Your task to perform on an android device: set the stopwatch Image 0: 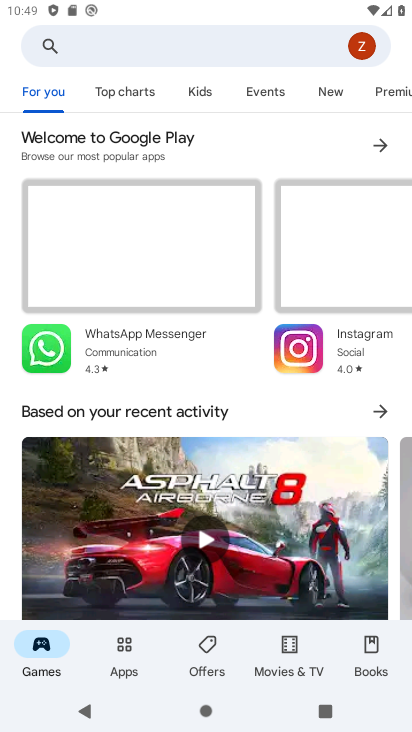
Step 0: press home button
Your task to perform on an android device: set the stopwatch Image 1: 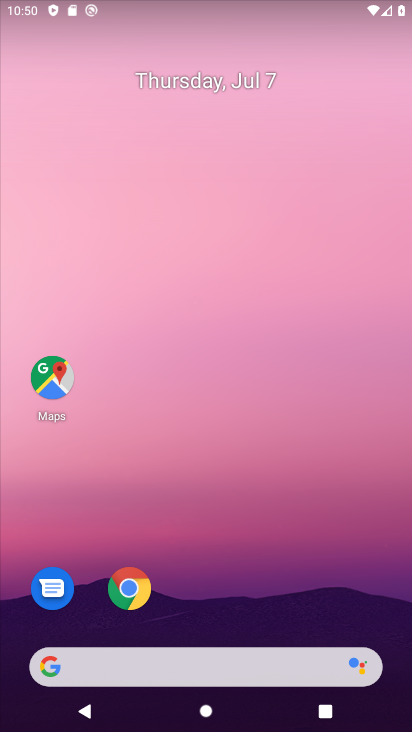
Step 1: drag from (284, 546) to (218, 112)
Your task to perform on an android device: set the stopwatch Image 2: 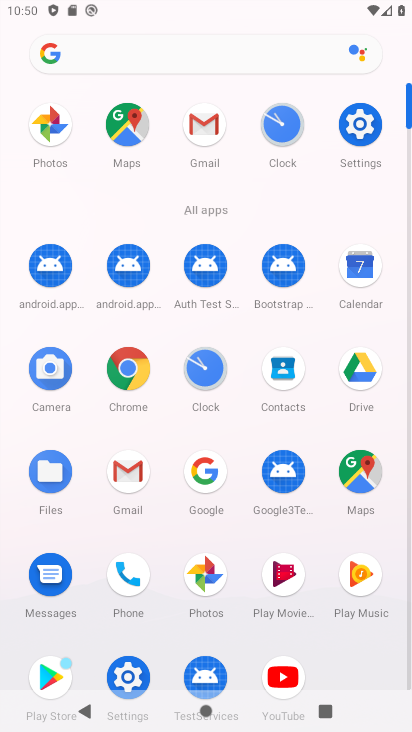
Step 2: click (280, 122)
Your task to perform on an android device: set the stopwatch Image 3: 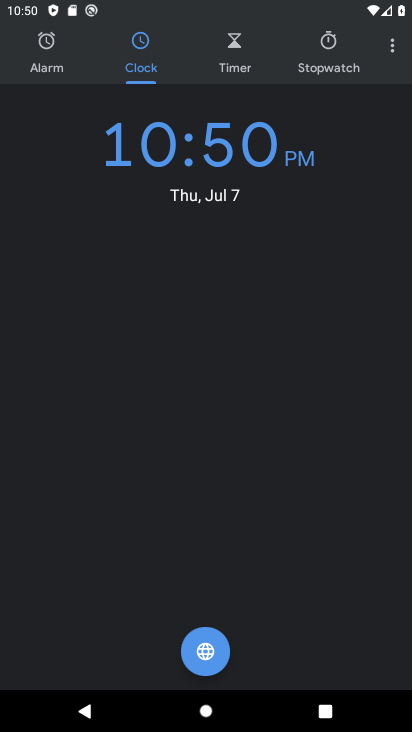
Step 3: click (343, 69)
Your task to perform on an android device: set the stopwatch Image 4: 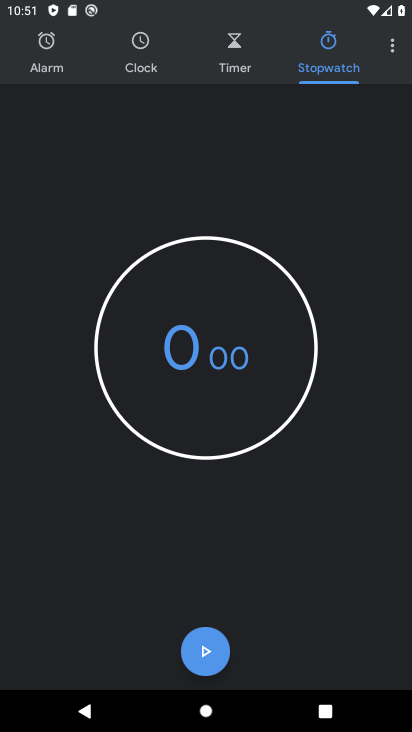
Step 4: click (209, 682)
Your task to perform on an android device: set the stopwatch Image 5: 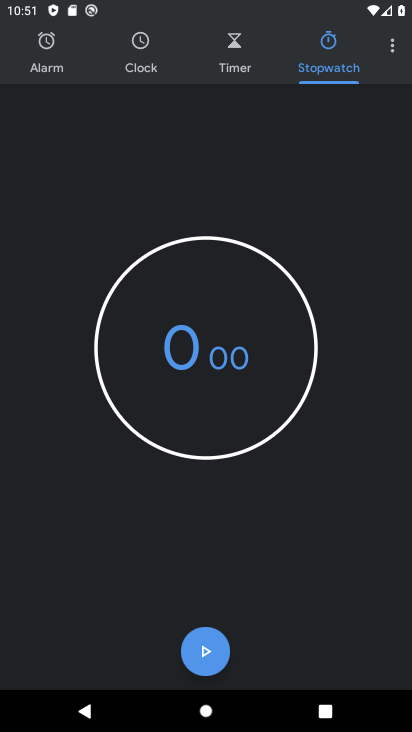
Step 5: click (211, 671)
Your task to perform on an android device: set the stopwatch Image 6: 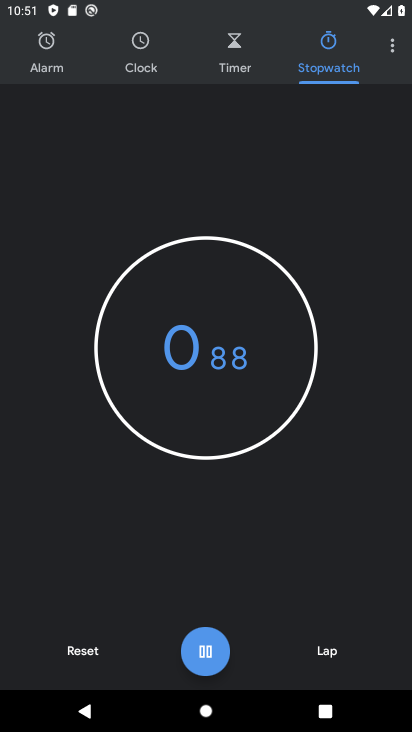
Step 6: click (208, 654)
Your task to perform on an android device: set the stopwatch Image 7: 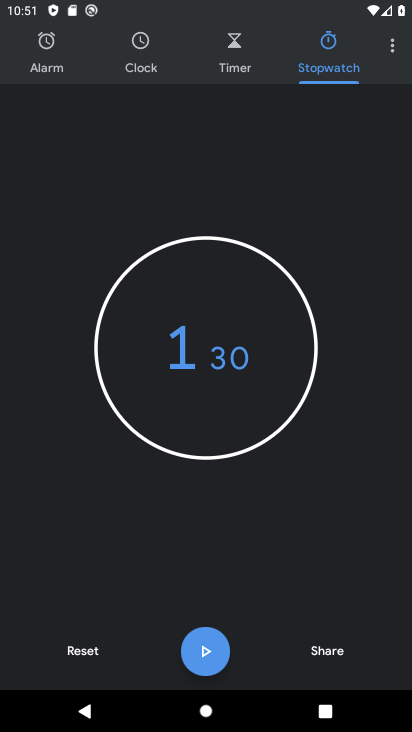
Step 7: task complete